Your task to perform on an android device: Open Google Maps Image 0: 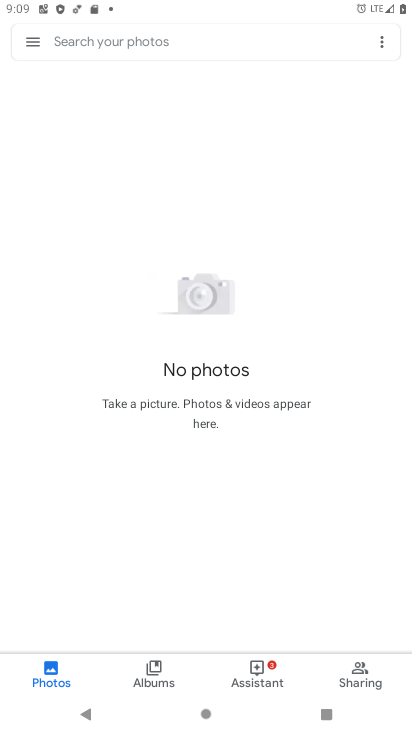
Step 0: press home button
Your task to perform on an android device: Open Google Maps Image 1: 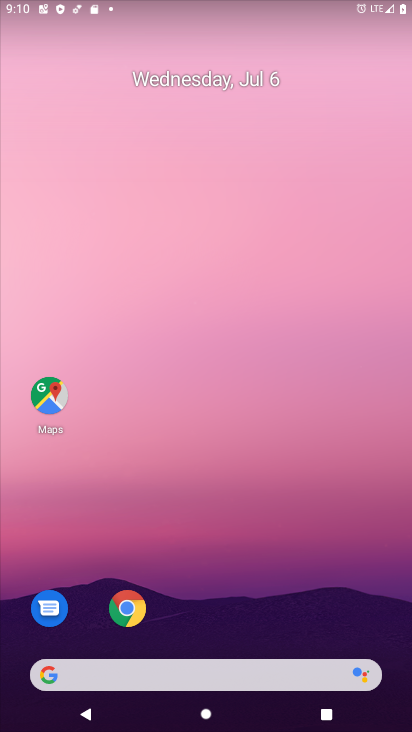
Step 1: drag from (378, 616) to (253, 1)
Your task to perform on an android device: Open Google Maps Image 2: 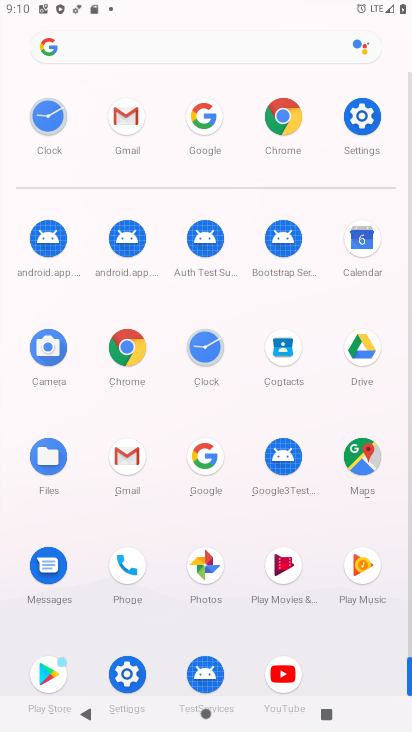
Step 2: click (359, 444)
Your task to perform on an android device: Open Google Maps Image 3: 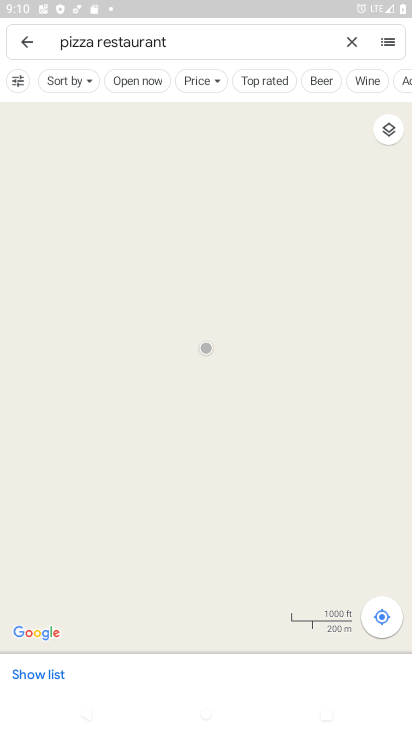
Step 3: click (349, 39)
Your task to perform on an android device: Open Google Maps Image 4: 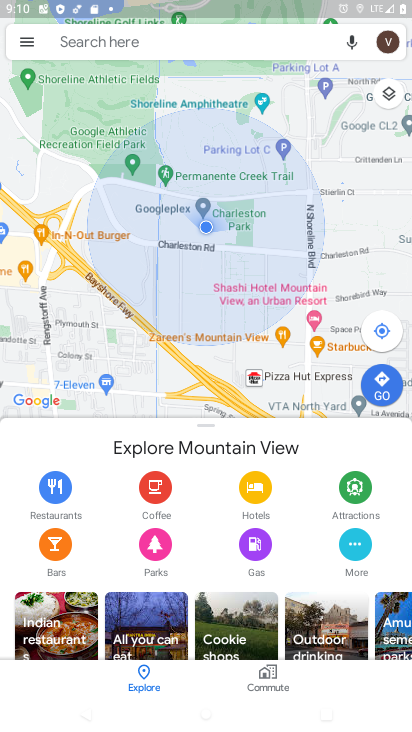
Step 4: task complete